Your task to perform on an android device: delete the emails in spam in the gmail app Image 0: 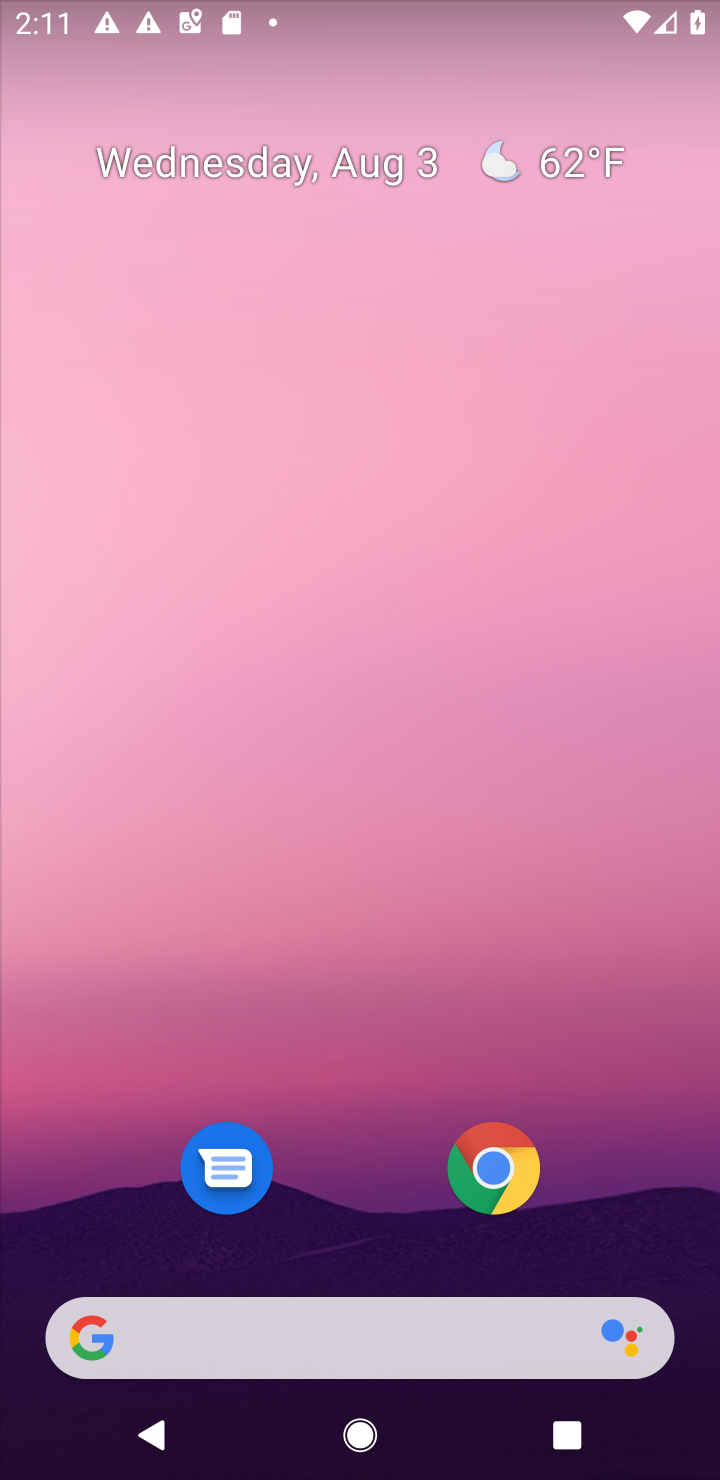
Step 0: drag from (616, 853) to (590, 186)
Your task to perform on an android device: delete the emails in spam in the gmail app Image 1: 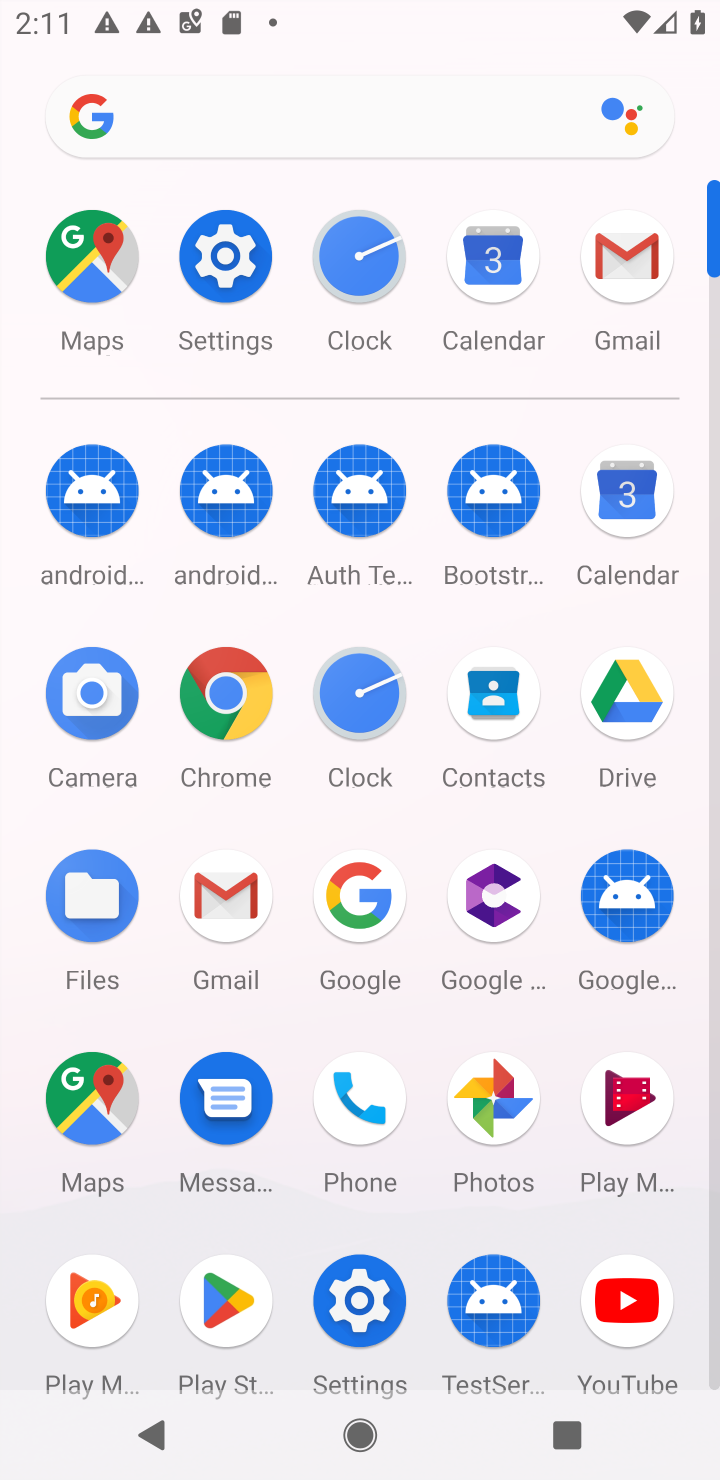
Step 1: click (227, 889)
Your task to perform on an android device: delete the emails in spam in the gmail app Image 2: 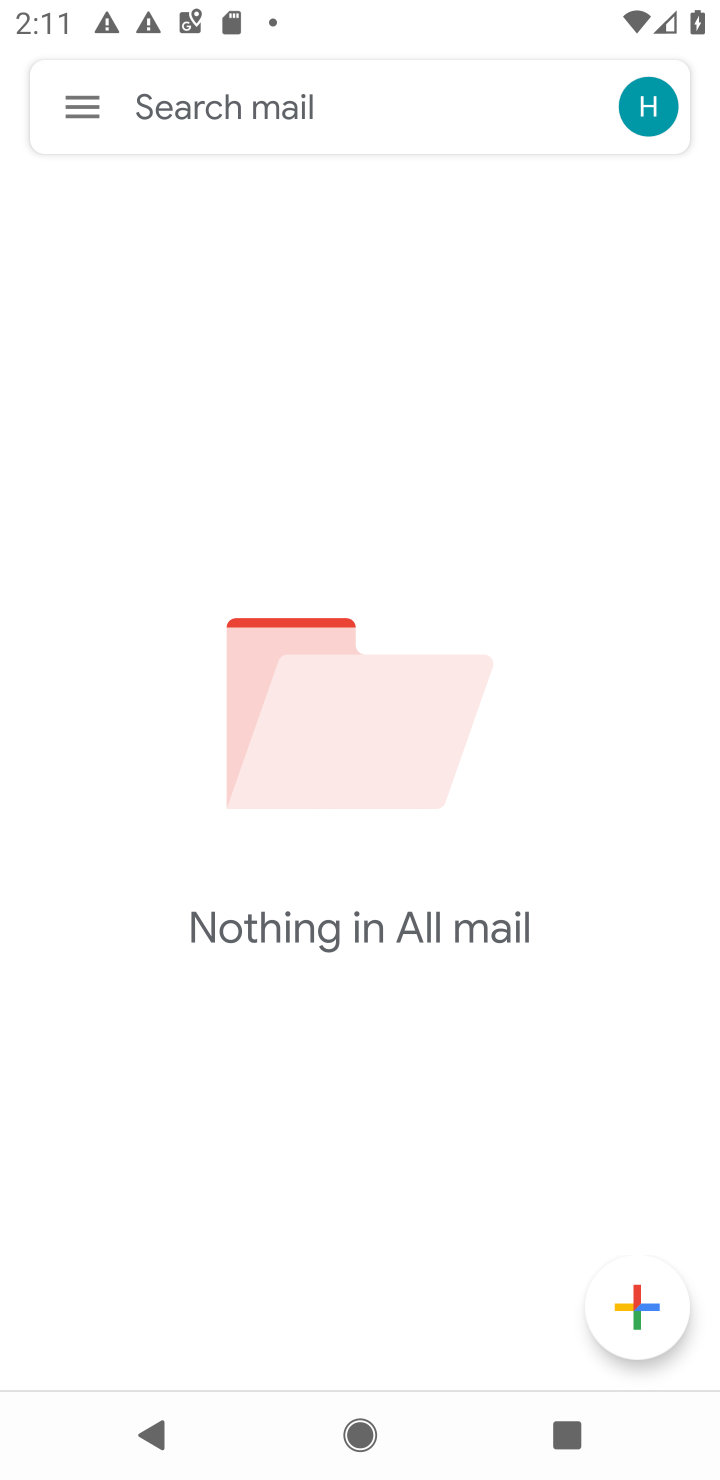
Step 2: click (77, 117)
Your task to perform on an android device: delete the emails in spam in the gmail app Image 3: 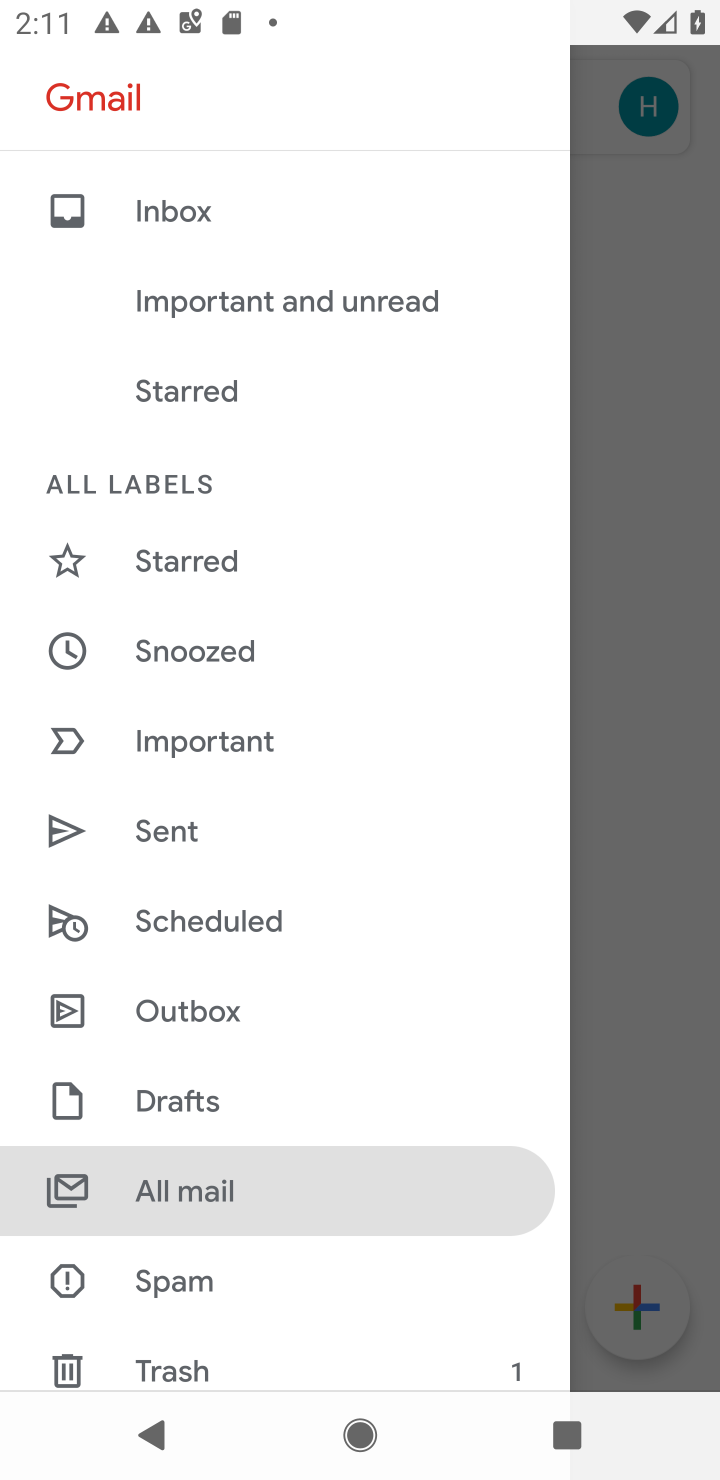
Step 3: click (135, 1284)
Your task to perform on an android device: delete the emails in spam in the gmail app Image 4: 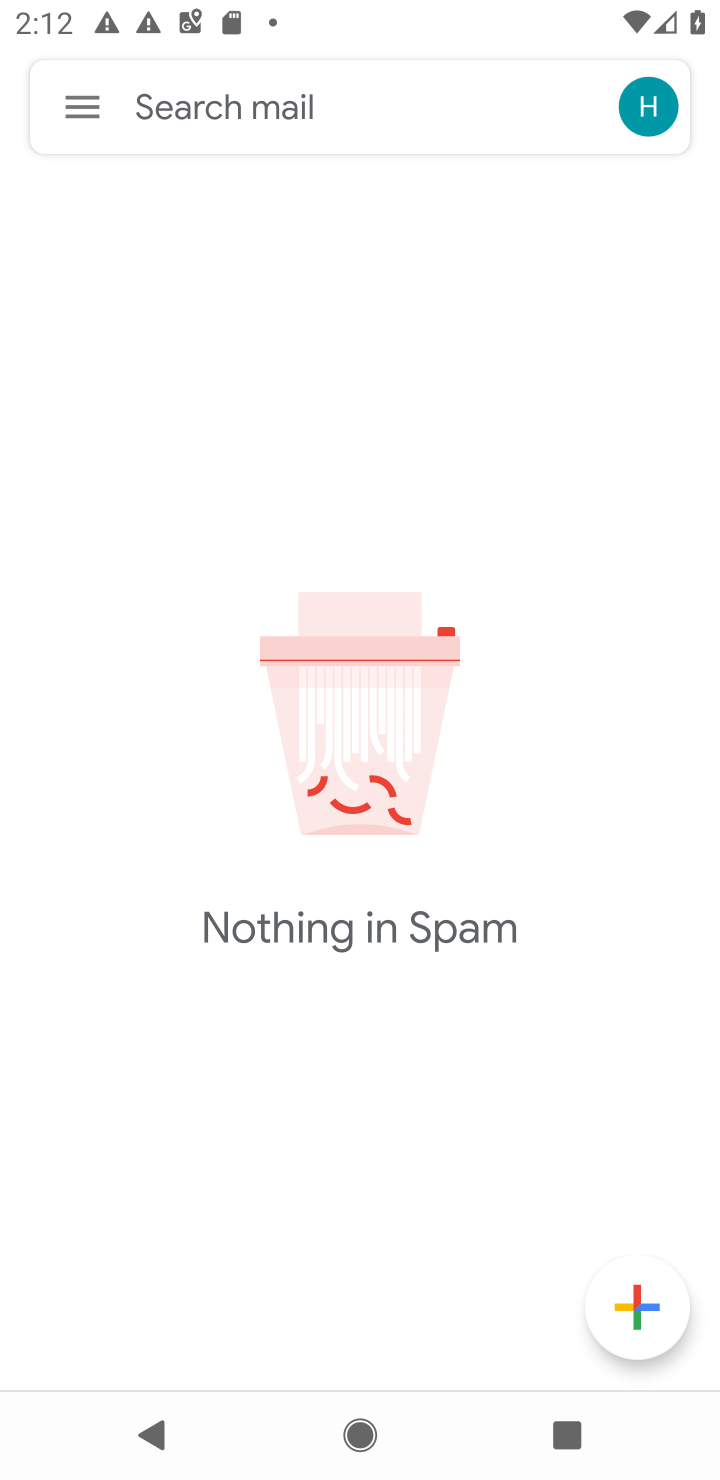
Step 4: task complete